Your task to perform on an android device: Play the last video I watched on Youtube Image 0: 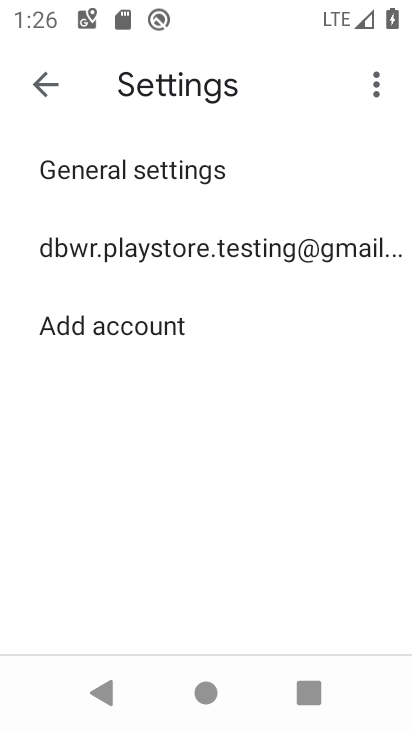
Step 0: click (139, 258)
Your task to perform on an android device: Play the last video I watched on Youtube Image 1: 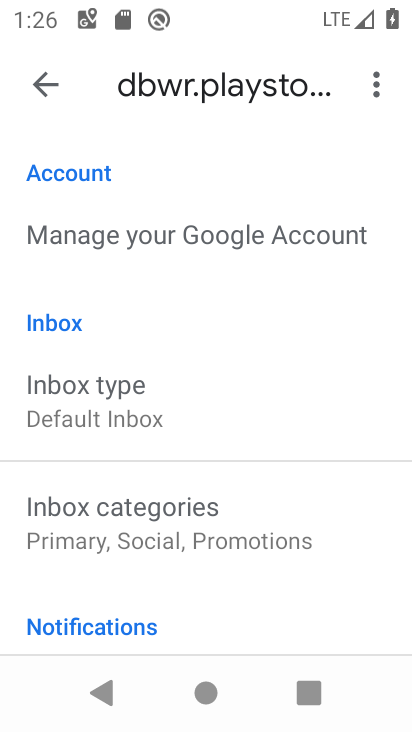
Step 1: press home button
Your task to perform on an android device: Play the last video I watched on Youtube Image 2: 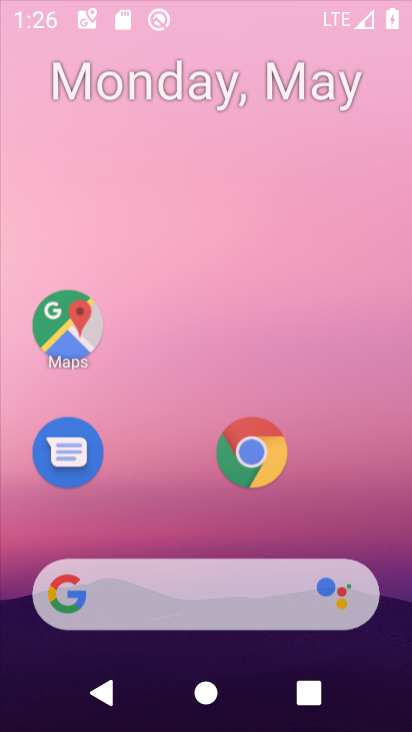
Step 2: drag from (184, 577) to (289, 2)
Your task to perform on an android device: Play the last video I watched on Youtube Image 3: 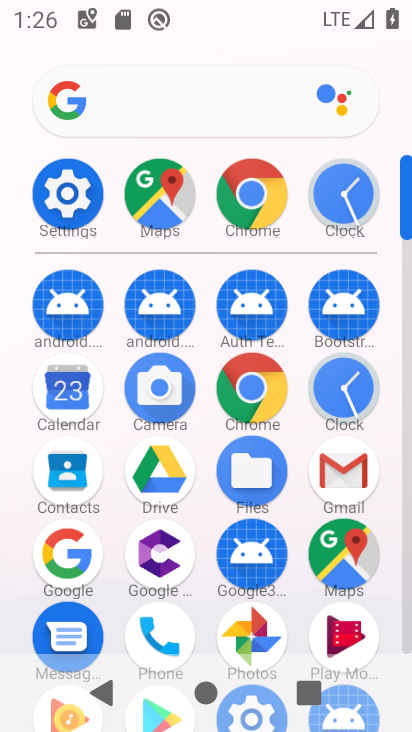
Step 3: drag from (216, 618) to (246, 130)
Your task to perform on an android device: Play the last video I watched on Youtube Image 4: 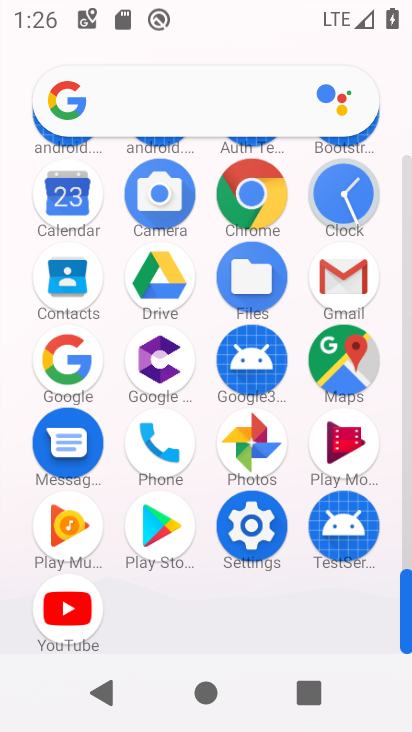
Step 4: click (81, 617)
Your task to perform on an android device: Play the last video I watched on Youtube Image 5: 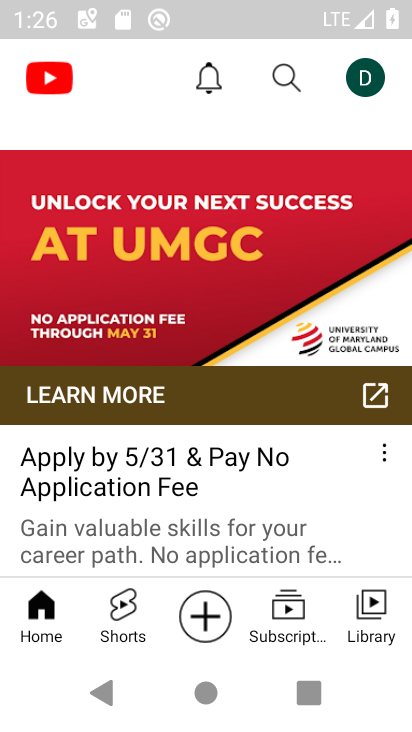
Step 5: click (353, 626)
Your task to perform on an android device: Play the last video I watched on Youtube Image 6: 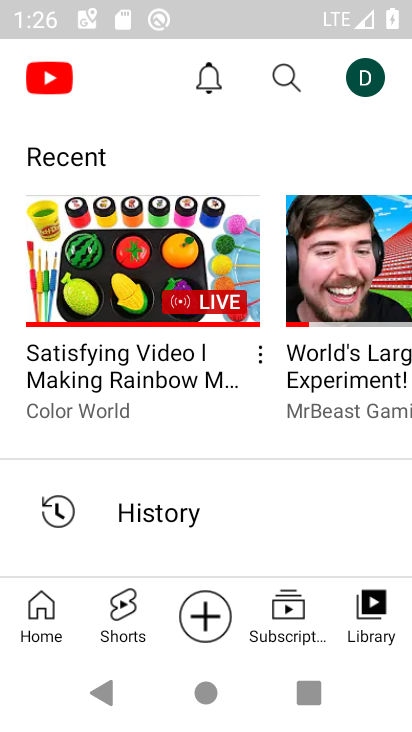
Step 6: click (104, 270)
Your task to perform on an android device: Play the last video I watched on Youtube Image 7: 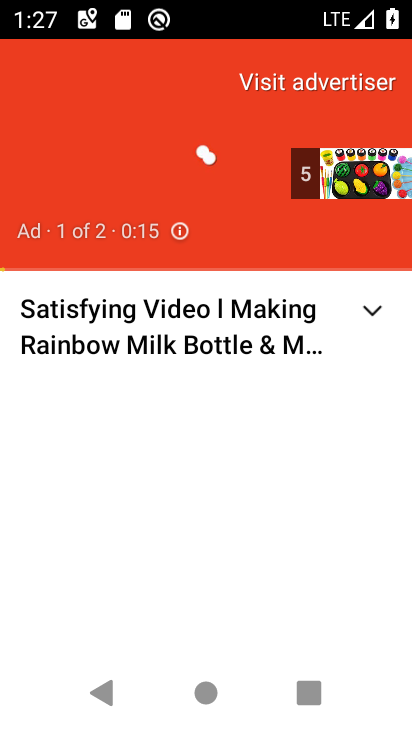
Step 7: task complete